Your task to perform on an android device: show emergency info Image 0: 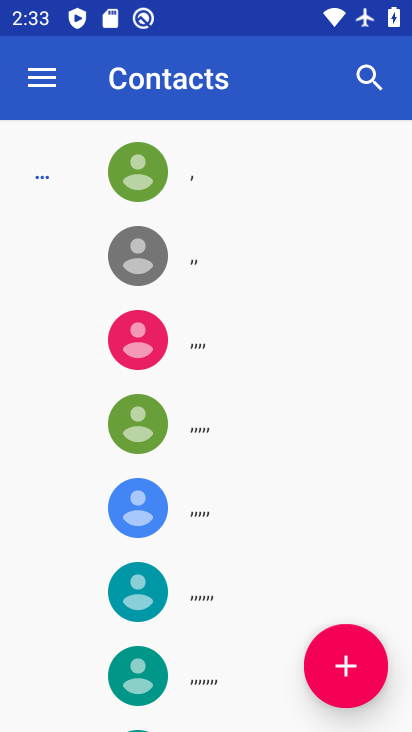
Step 0: press home button
Your task to perform on an android device: show emergency info Image 1: 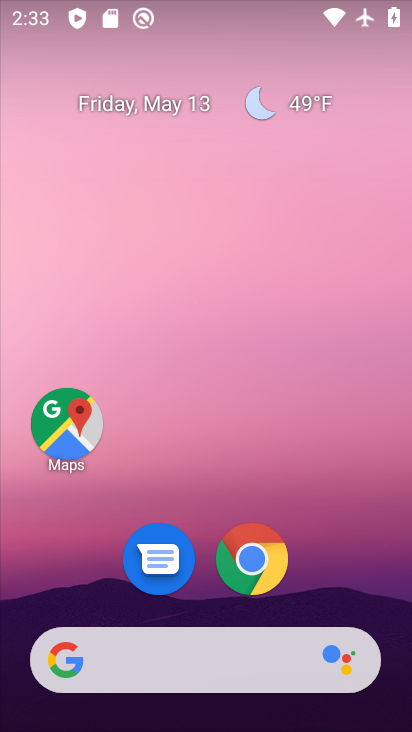
Step 1: drag from (392, 627) to (250, 6)
Your task to perform on an android device: show emergency info Image 2: 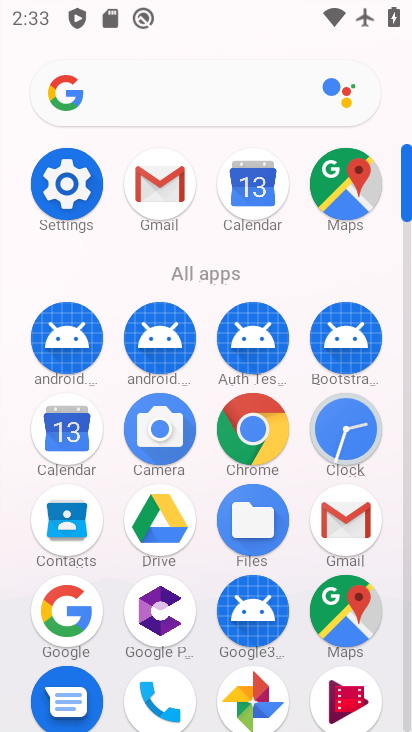
Step 2: click (408, 695)
Your task to perform on an android device: show emergency info Image 3: 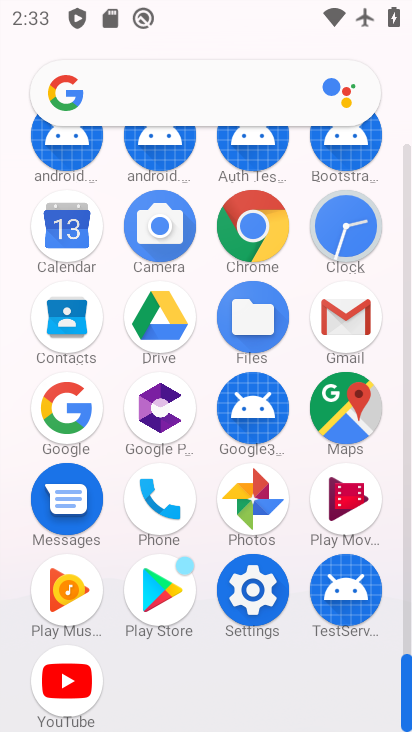
Step 3: click (252, 587)
Your task to perform on an android device: show emergency info Image 4: 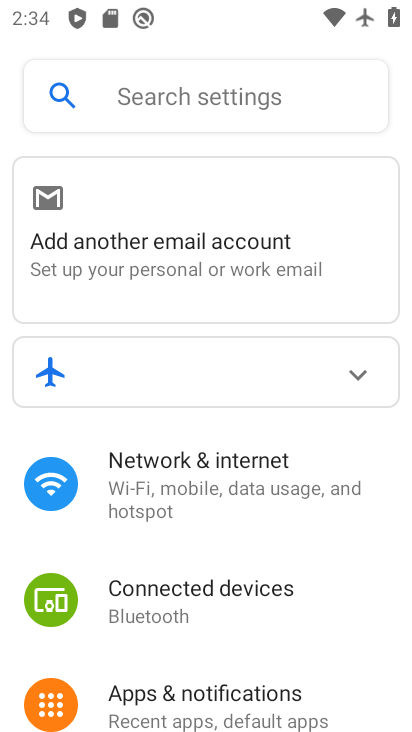
Step 4: drag from (359, 676) to (333, 237)
Your task to perform on an android device: show emergency info Image 5: 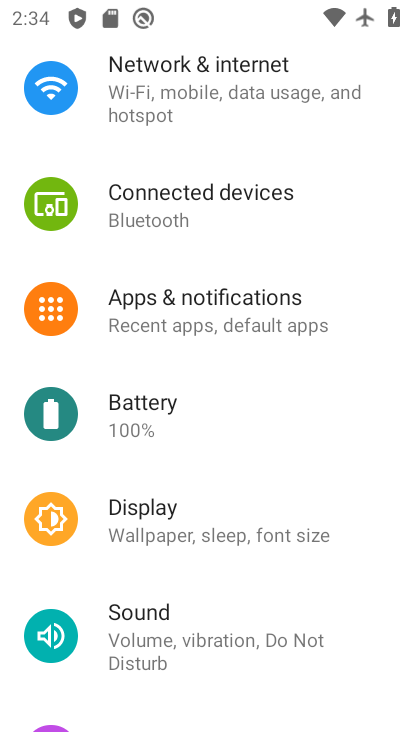
Step 5: drag from (349, 582) to (349, 216)
Your task to perform on an android device: show emergency info Image 6: 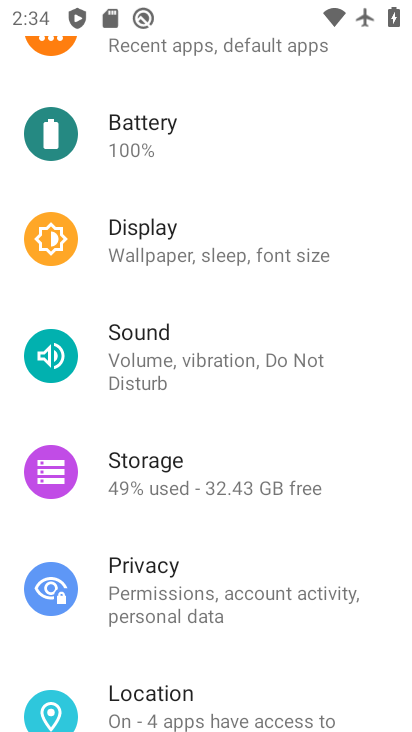
Step 6: drag from (354, 654) to (313, 232)
Your task to perform on an android device: show emergency info Image 7: 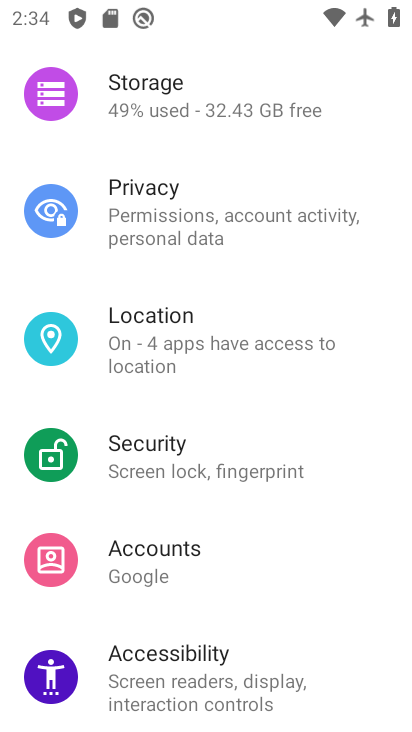
Step 7: drag from (327, 605) to (318, 245)
Your task to perform on an android device: show emergency info Image 8: 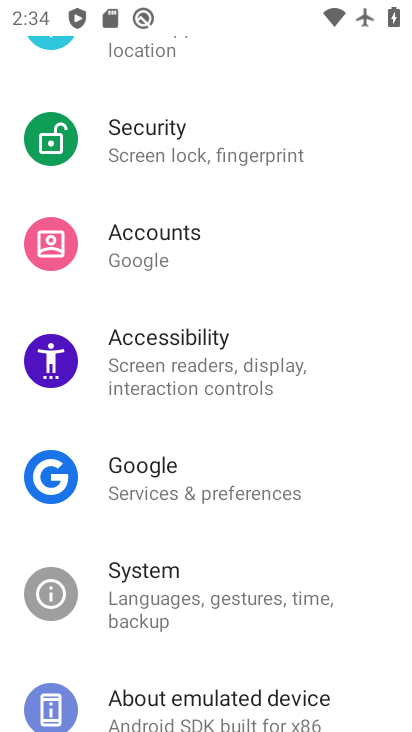
Step 8: drag from (356, 670) to (319, 358)
Your task to perform on an android device: show emergency info Image 9: 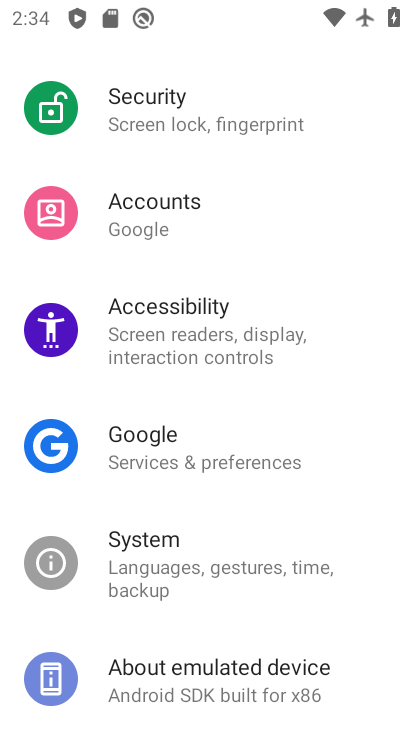
Step 9: click (177, 673)
Your task to perform on an android device: show emergency info Image 10: 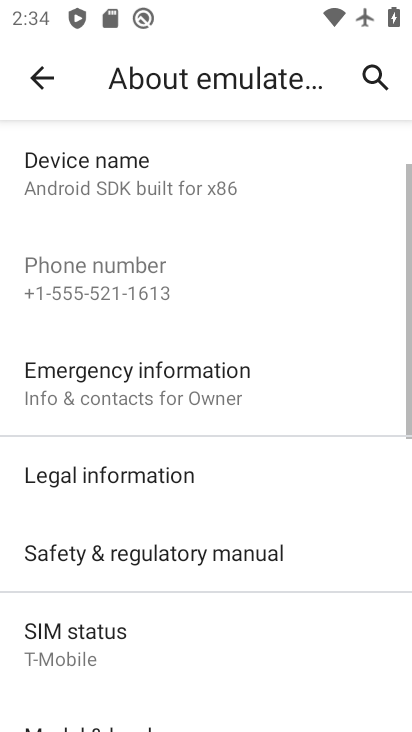
Step 10: click (108, 388)
Your task to perform on an android device: show emergency info Image 11: 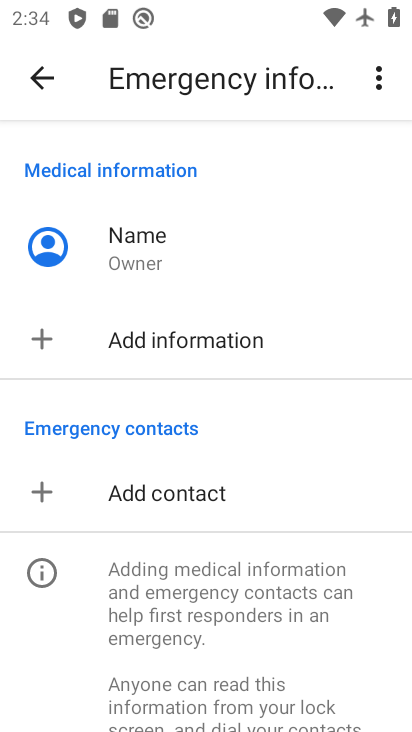
Step 11: task complete